Your task to perform on an android device: turn on translation in the chrome app Image 0: 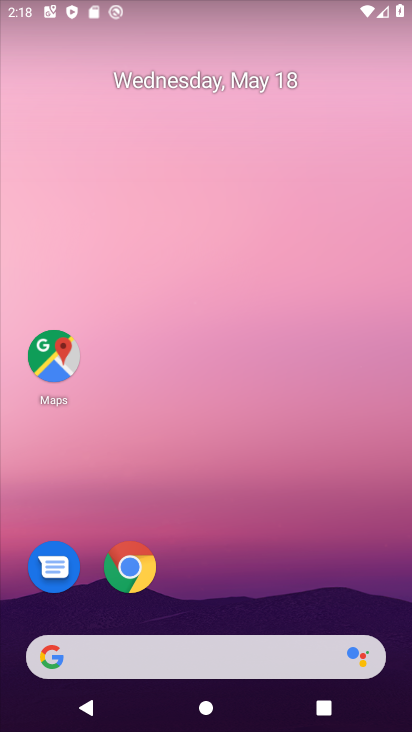
Step 0: drag from (256, 593) to (273, 269)
Your task to perform on an android device: turn on translation in the chrome app Image 1: 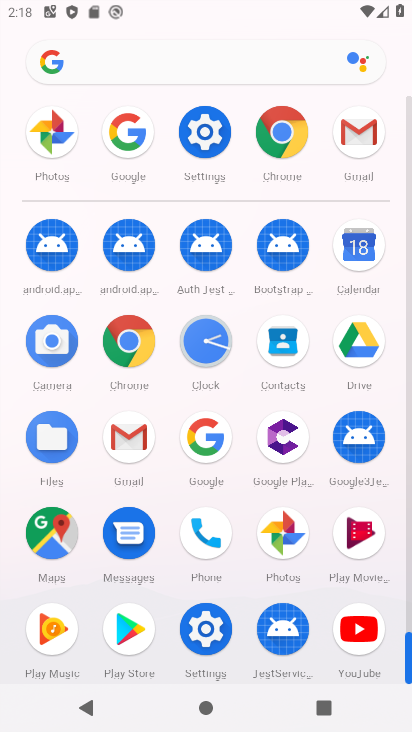
Step 1: click (278, 118)
Your task to perform on an android device: turn on translation in the chrome app Image 2: 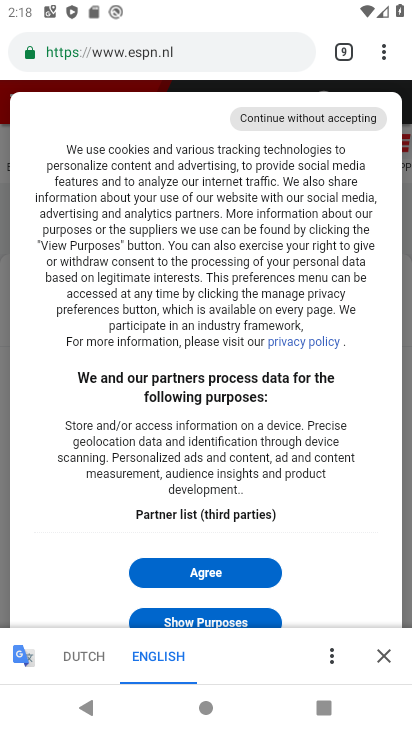
Step 2: click (378, 54)
Your task to perform on an android device: turn on translation in the chrome app Image 3: 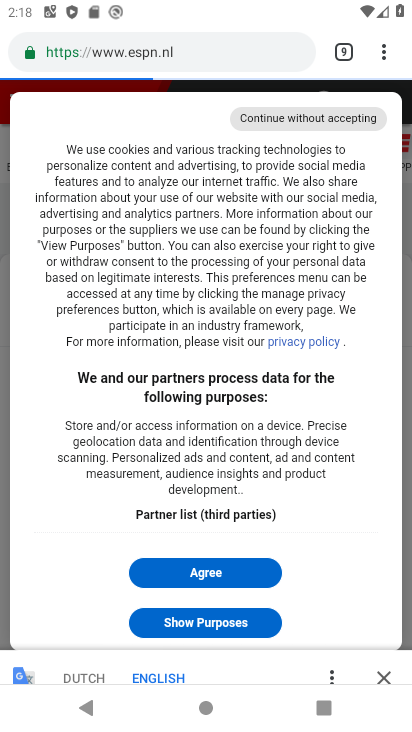
Step 3: click (376, 38)
Your task to perform on an android device: turn on translation in the chrome app Image 4: 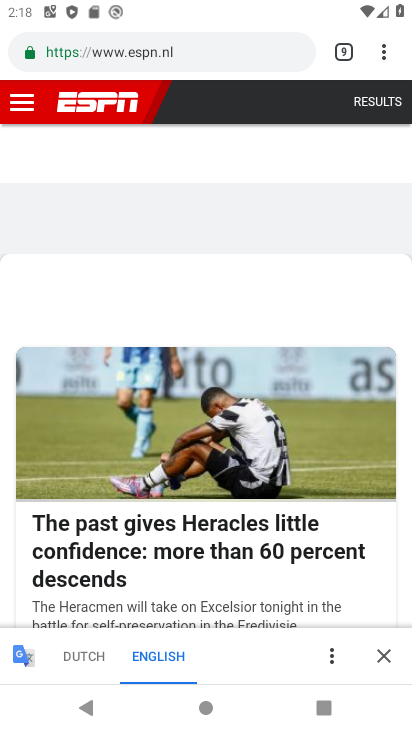
Step 4: click (381, 57)
Your task to perform on an android device: turn on translation in the chrome app Image 5: 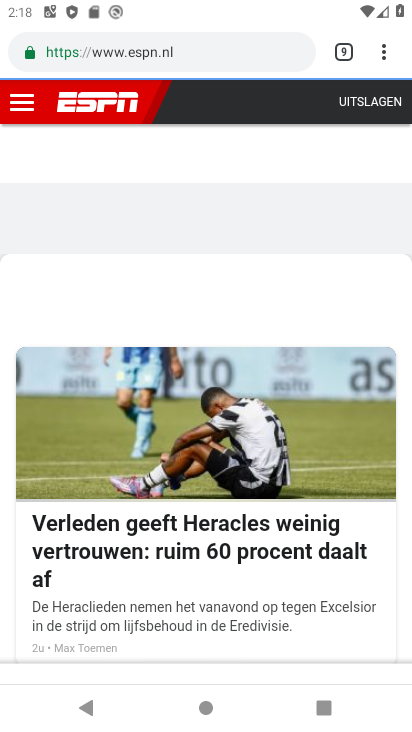
Step 5: click (365, 54)
Your task to perform on an android device: turn on translation in the chrome app Image 6: 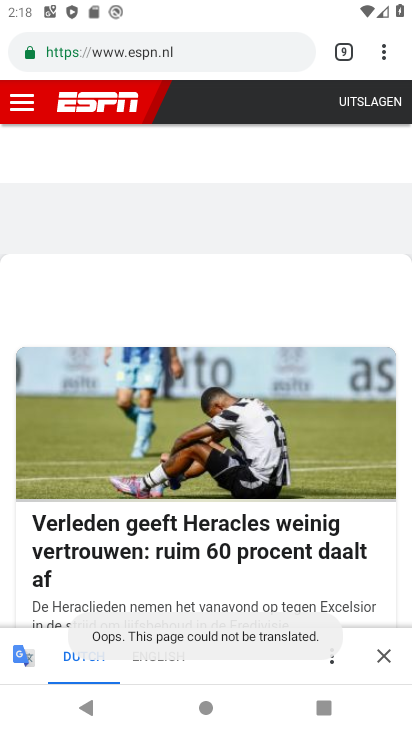
Step 6: click (368, 55)
Your task to perform on an android device: turn on translation in the chrome app Image 7: 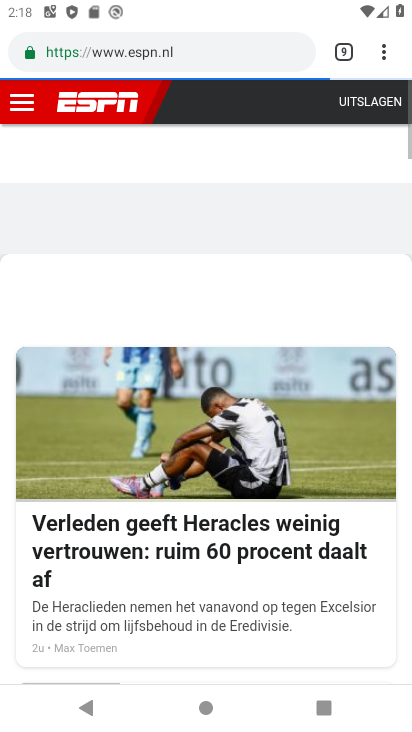
Step 7: click (373, 61)
Your task to perform on an android device: turn on translation in the chrome app Image 8: 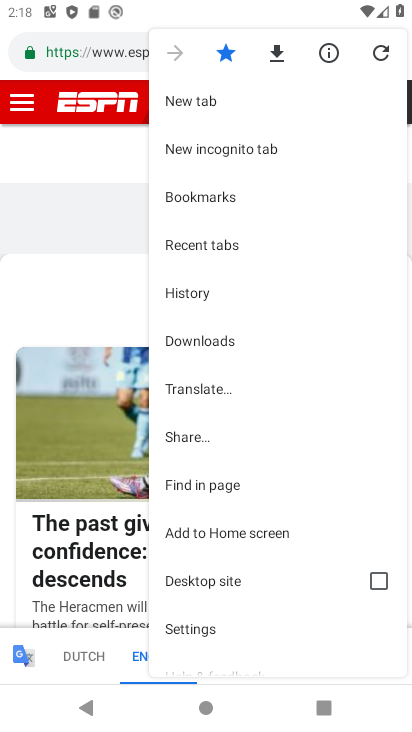
Step 8: drag from (255, 603) to (277, 466)
Your task to perform on an android device: turn on translation in the chrome app Image 9: 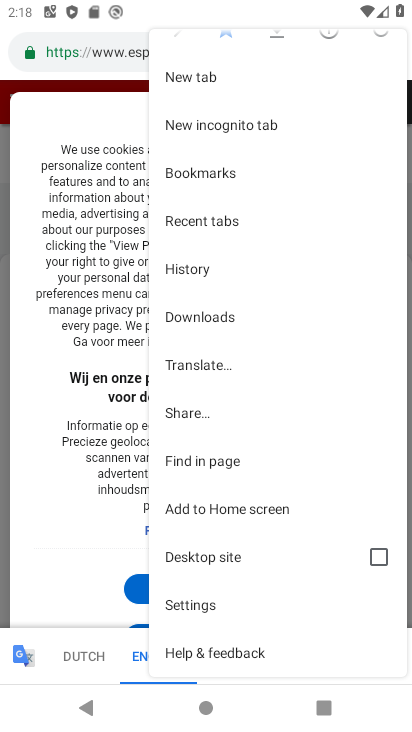
Step 9: click (207, 603)
Your task to perform on an android device: turn on translation in the chrome app Image 10: 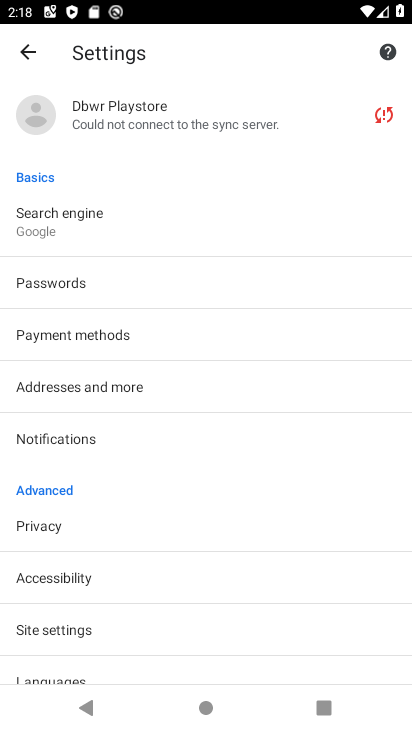
Step 10: drag from (110, 634) to (144, 499)
Your task to perform on an android device: turn on translation in the chrome app Image 11: 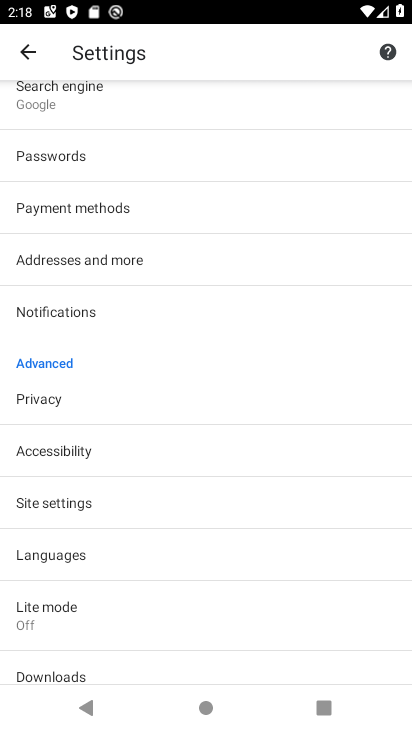
Step 11: click (101, 550)
Your task to perform on an android device: turn on translation in the chrome app Image 12: 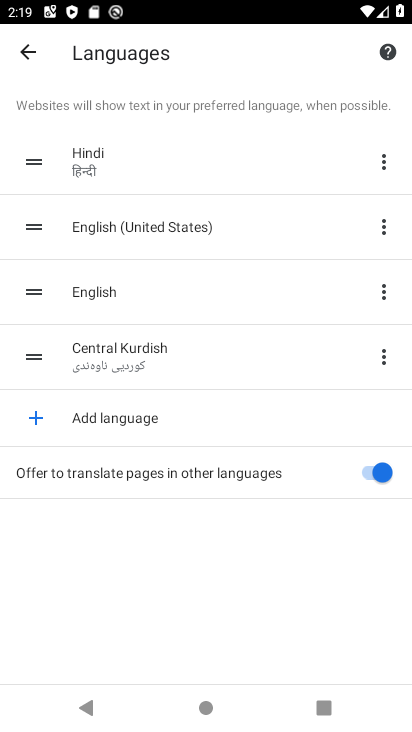
Step 12: task complete